Your task to perform on an android device: toggle sleep mode Image 0: 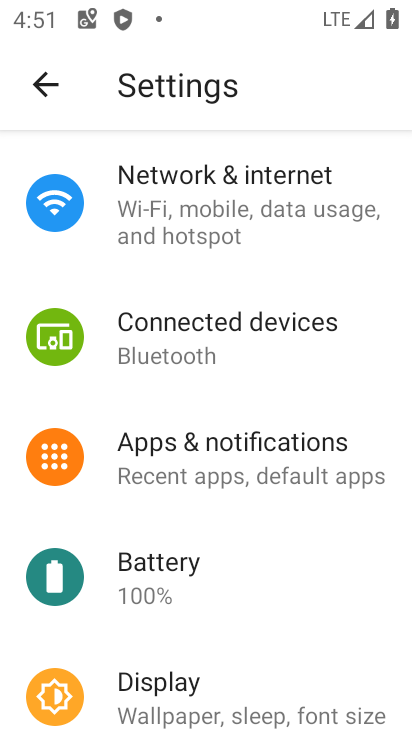
Step 0: drag from (219, 703) to (204, 283)
Your task to perform on an android device: toggle sleep mode Image 1: 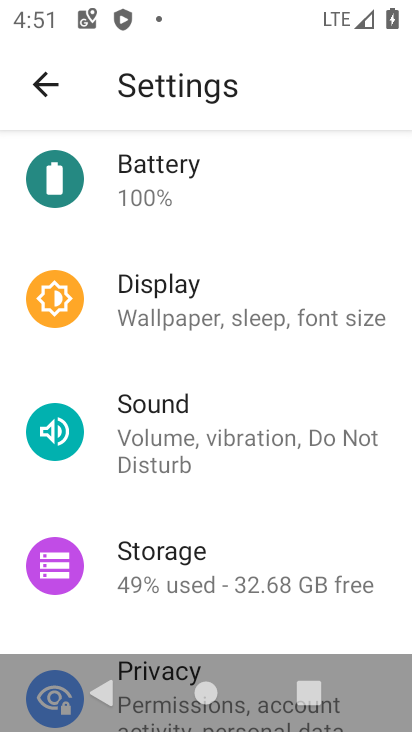
Step 1: drag from (213, 628) to (210, 208)
Your task to perform on an android device: toggle sleep mode Image 2: 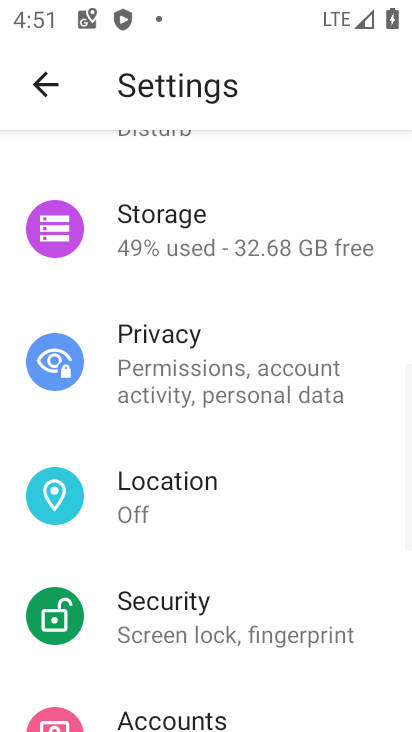
Step 2: drag from (261, 165) to (266, 585)
Your task to perform on an android device: toggle sleep mode Image 3: 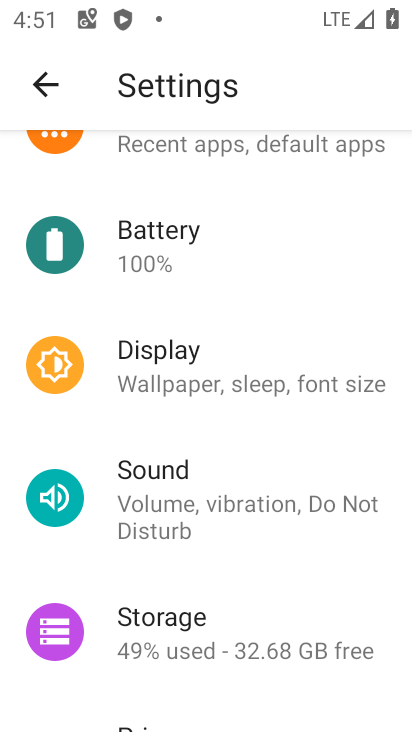
Step 3: click (260, 373)
Your task to perform on an android device: toggle sleep mode Image 4: 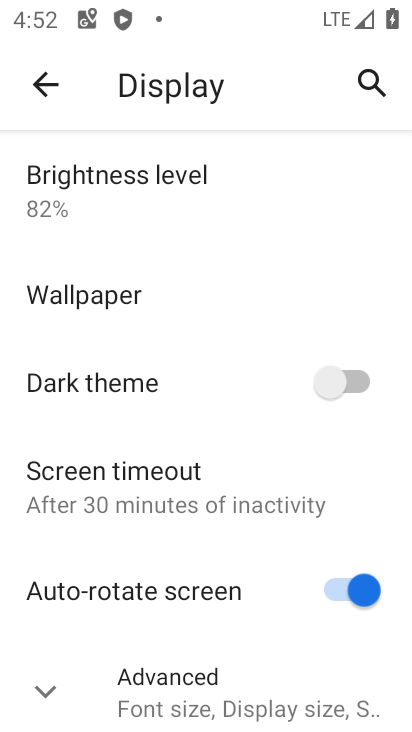
Step 4: task complete